Your task to perform on an android device: check battery use Image 0: 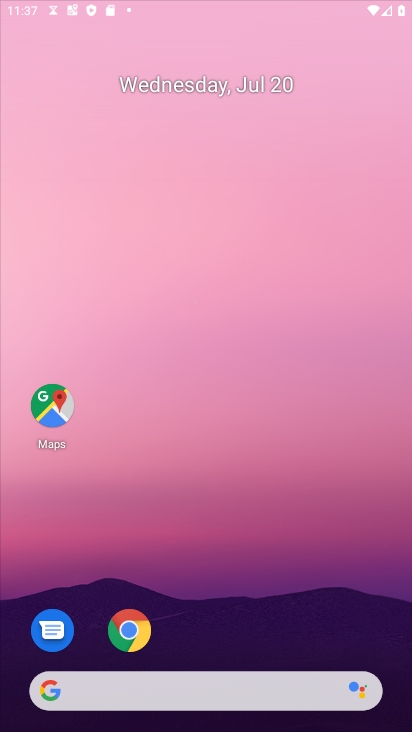
Step 0: click (123, 682)
Your task to perform on an android device: check battery use Image 1: 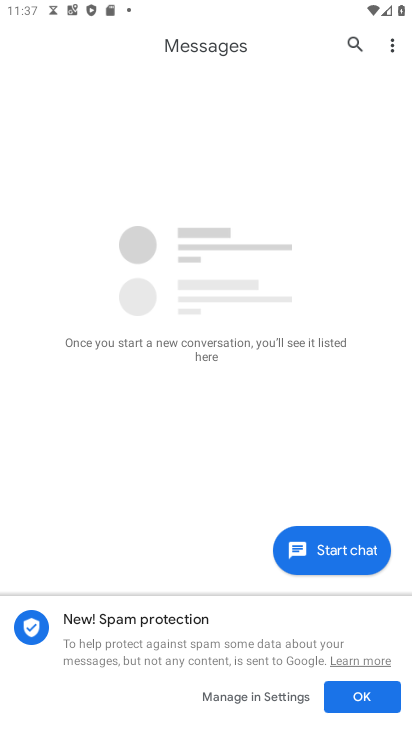
Step 1: press home button
Your task to perform on an android device: check battery use Image 2: 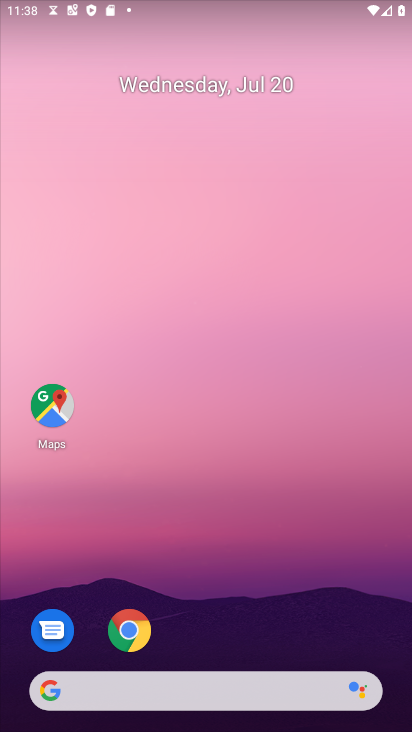
Step 2: drag from (76, 601) to (359, 96)
Your task to perform on an android device: check battery use Image 3: 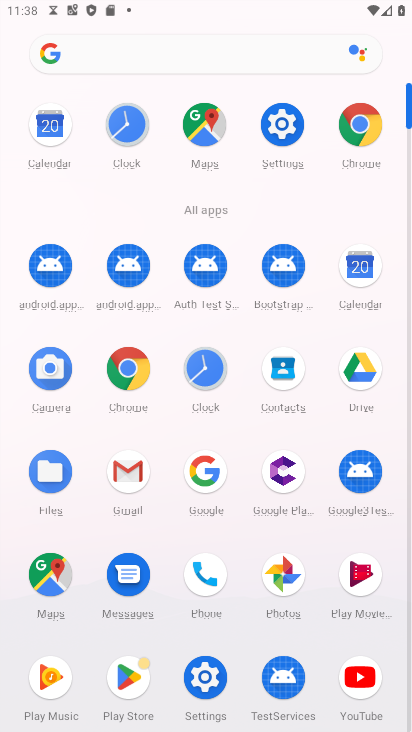
Step 3: click (201, 682)
Your task to perform on an android device: check battery use Image 4: 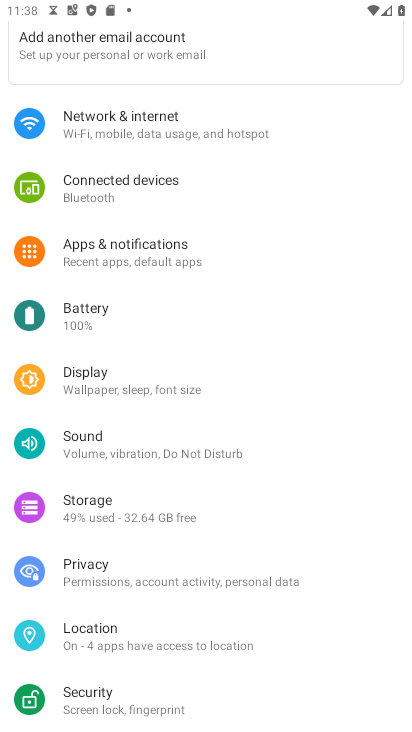
Step 4: click (91, 322)
Your task to perform on an android device: check battery use Image 5: 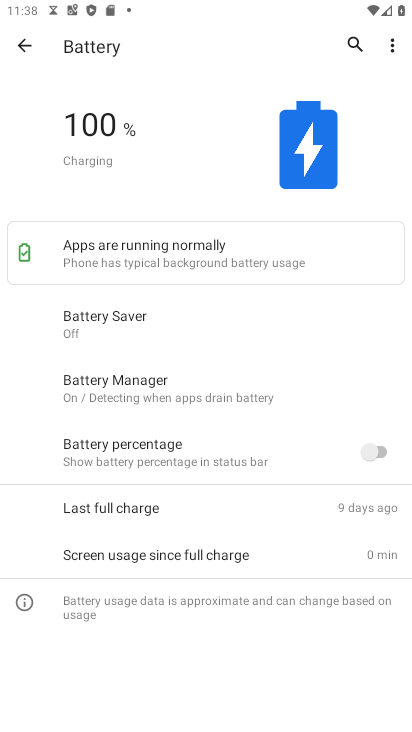
Step 5: task complete